Your task to perform on an android device: check battery use Image 0: 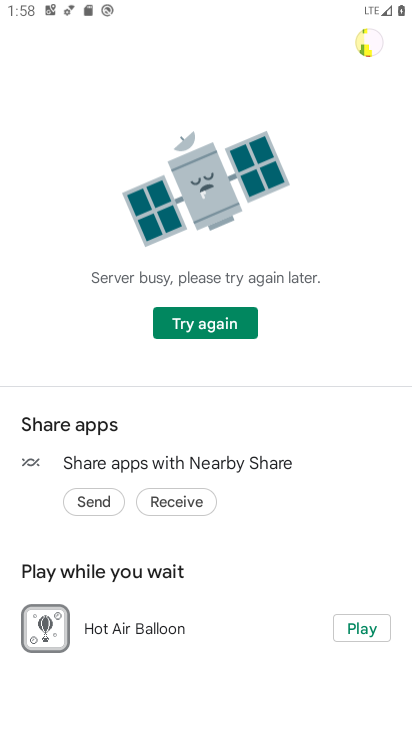
Step 0: press home button
Your task to perform on an android device: check battery use Image 1: 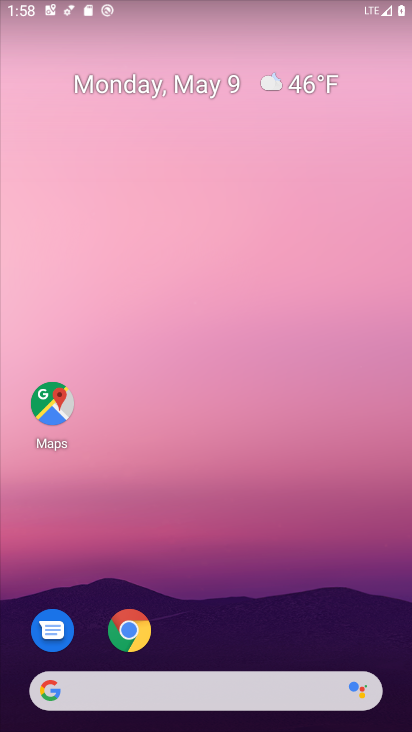
Step 1: drag from (262, 583) to (319, 144)
Your task to perform on an android device: check battery use Image 2: 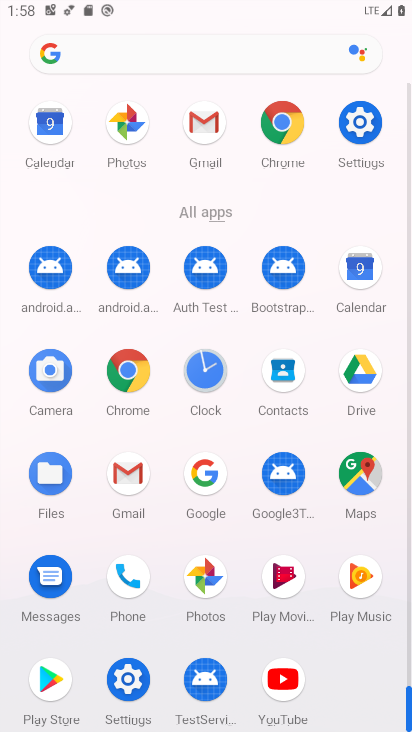
Step 2: click (375, 125)
Your task to perform on an android device: check battery use Image 3: 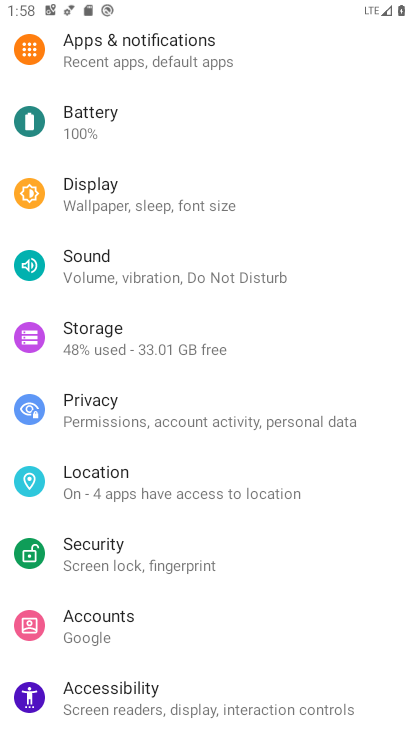
Step 3: click (126, 134)
Your task to perform on an android device: check battery use Image 4: 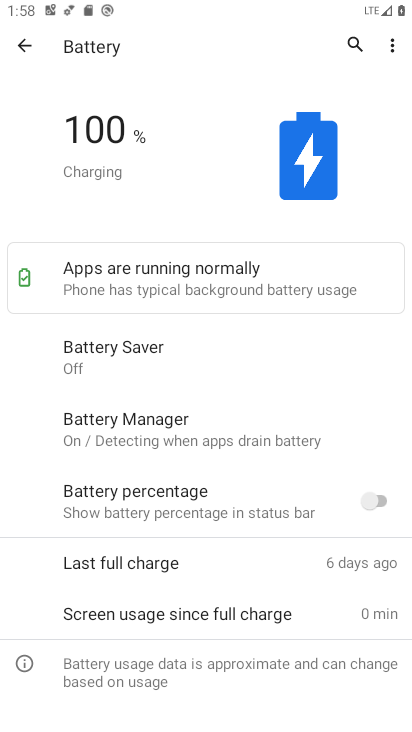
Step 4: task complete